Your task to perform on an android device: open wifi settings Image 0: 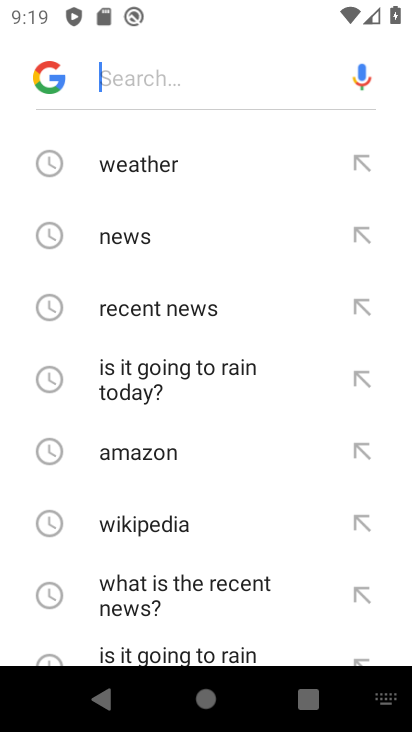
Step 0: press home button
Your task to perform on an android device: open wifi settings Image 1: 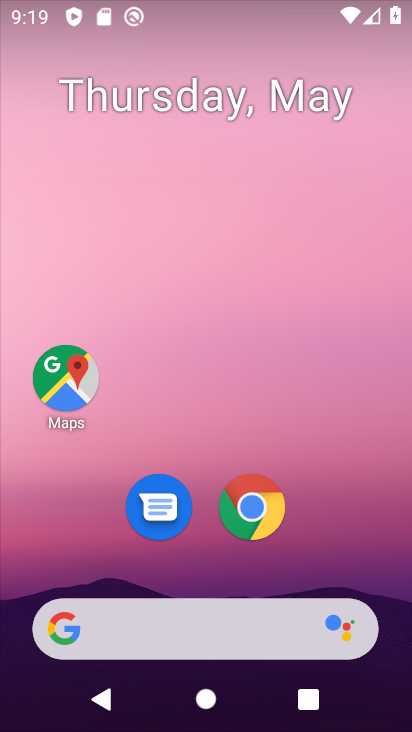
Step 1: drag from (351, 557) to (310, 72)
Your task to perform on an android device: open wifi settings Image 2: 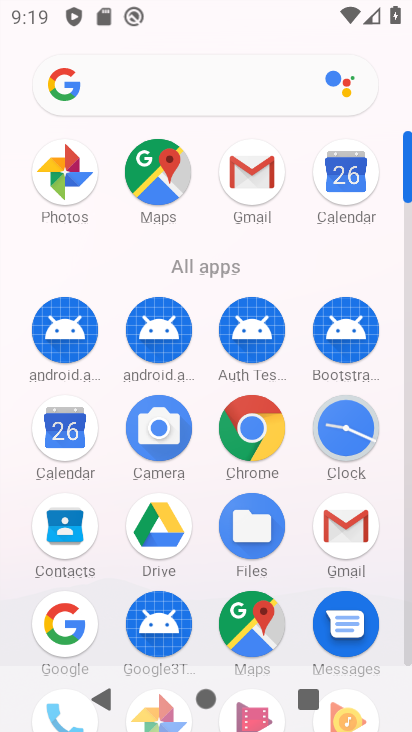
Step 2: click (403, 618)
Your task to perform on an android device: open wifi settings Image 3: 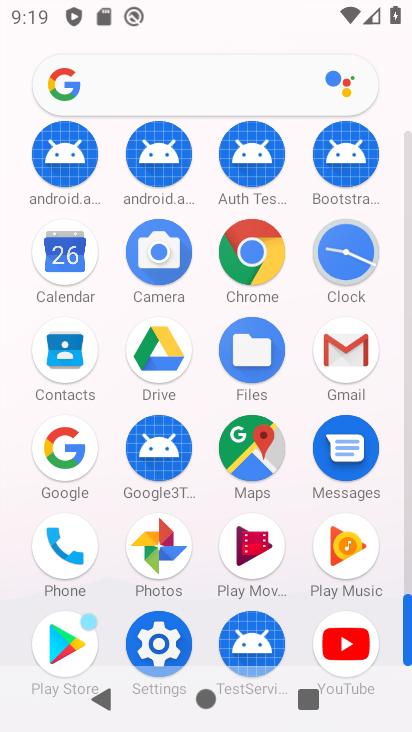
Step 3: click (138, 641)
Your task to perform on an android device: open wifi settings Image 4: 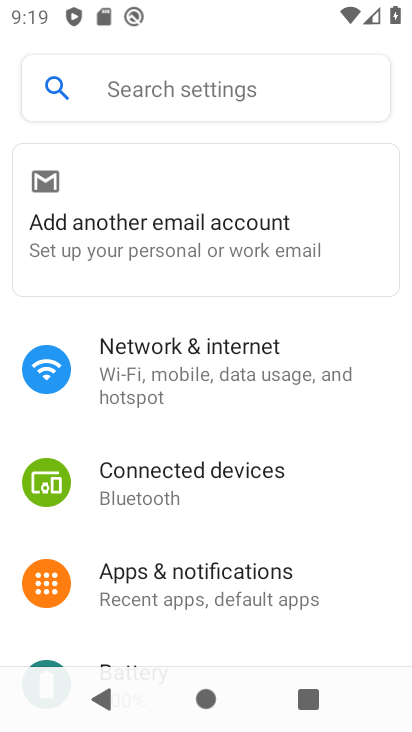
Step 4: click (168, 387)
Your task to perform on an android device: open wifi settings Image 5: 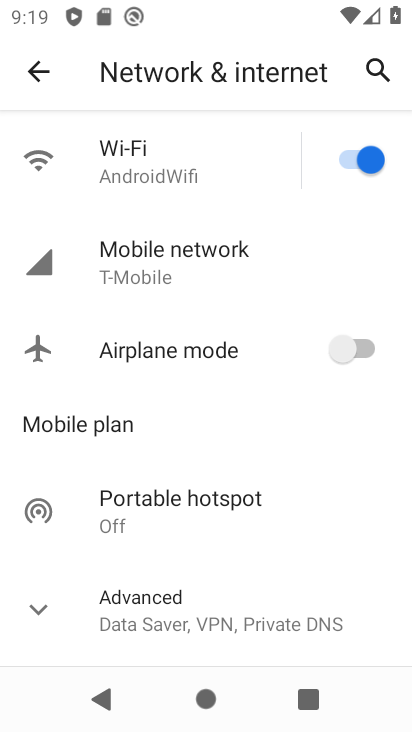
Step 5: click (172, 147)
Your task to perform on an android device: open wifi settings Image 6: 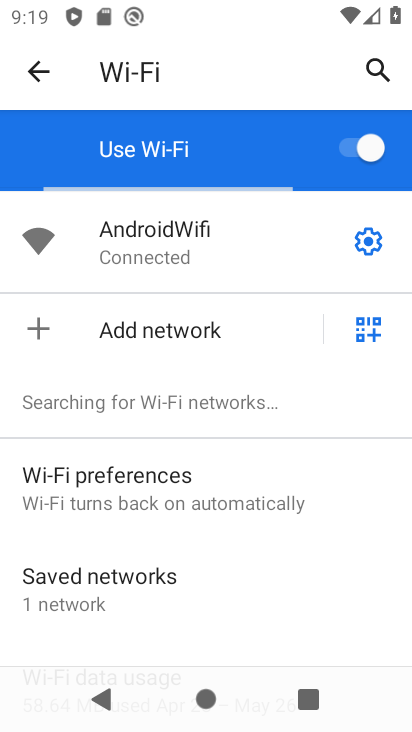
Step 6: task complete